Your task to perform on an android device: toggle wifi Image 0: 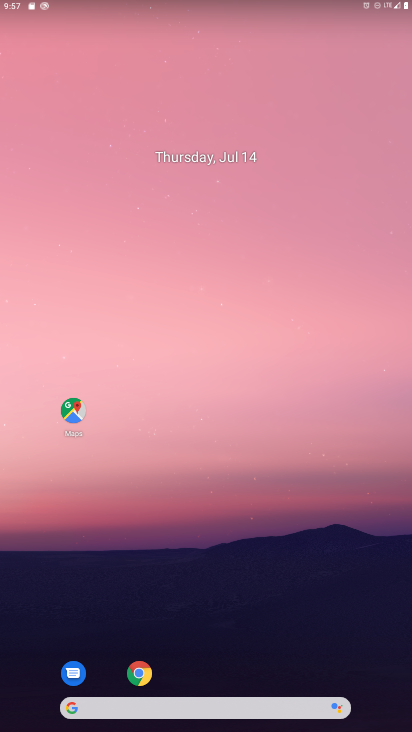
Step 0: drag from (205, 702) to (268, 204)
Your task to perform on an android device: toggle wifi Image 1: 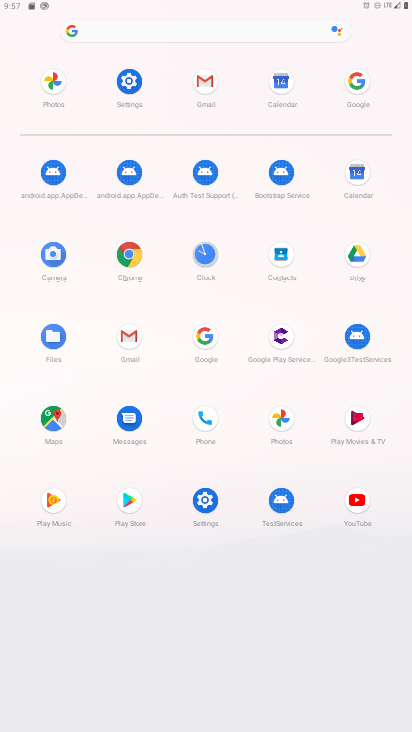
Step 1: click (131, 82)
Your task to perform on an android device: toggle wifi Image 2: 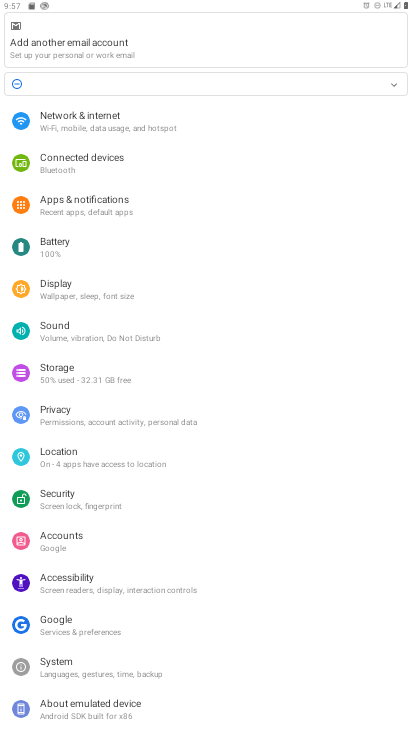
Step 2: click (119, 130)
Your task to perform on an android device: toggle wifi Image 3: 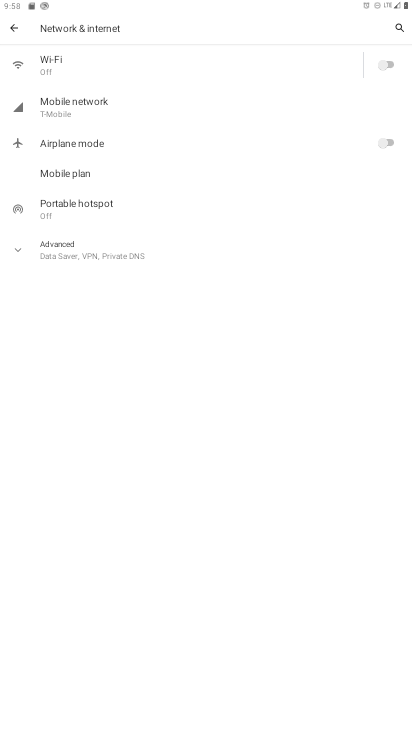
Step 3: click (384, 64)
Your task to perform on an android device: toggle wifi Image 4: 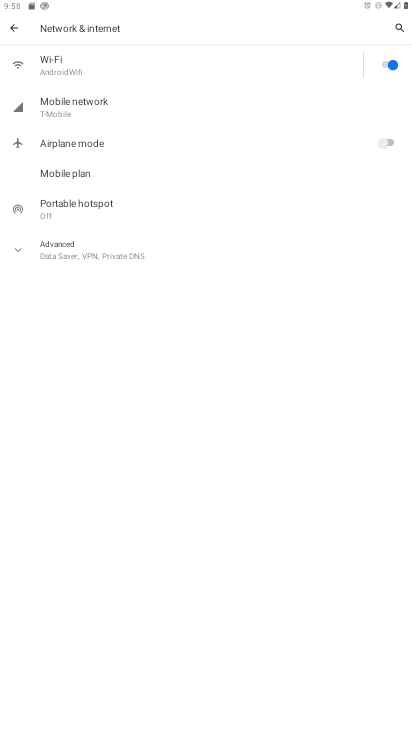
Step 4: task complete